Your task to perform on an android device: Open settings Image 0: 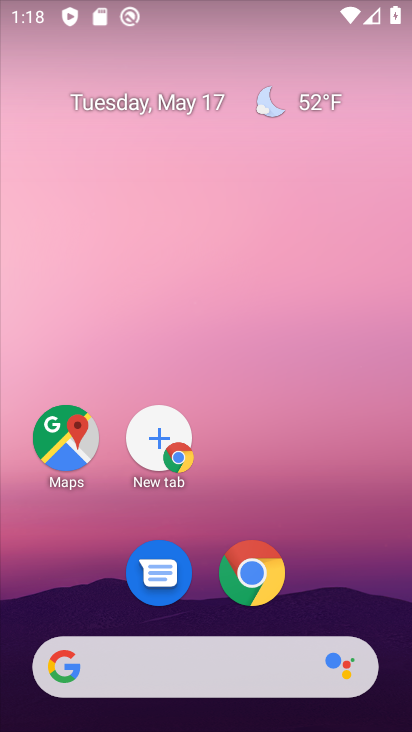
Step 0: drag from (326, 612) to (347, 181)
Your task to perform on an android device: Open settings Image 1: 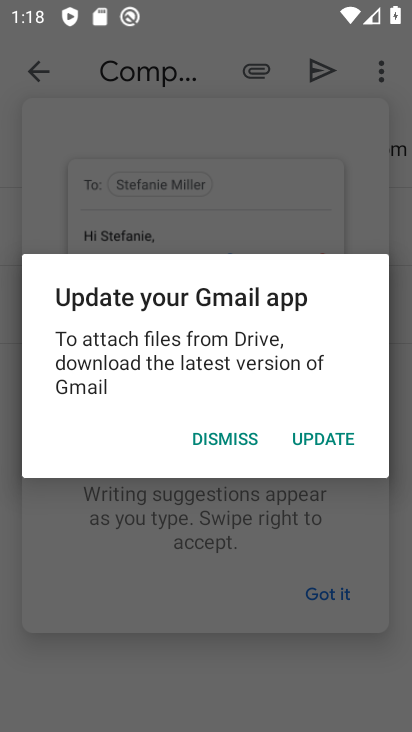
Step 1: press home button
Your task to perform on an android device: Open settings Image 2: 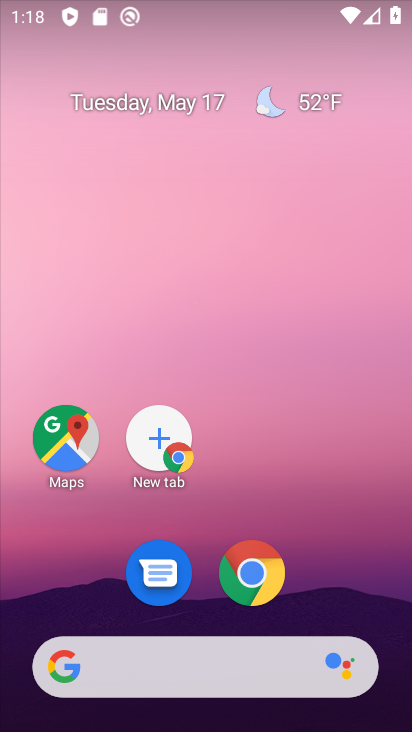
Step 2: drag from (301, 600) to (387, 134)
Your task to perform on an android device: Open settings Image 3: 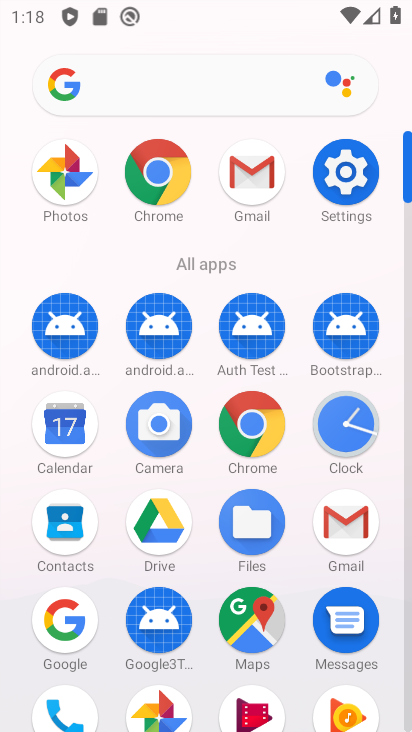
Step 3: click (339, 196)
Your task to perform on an android device: Open settings Image 4: 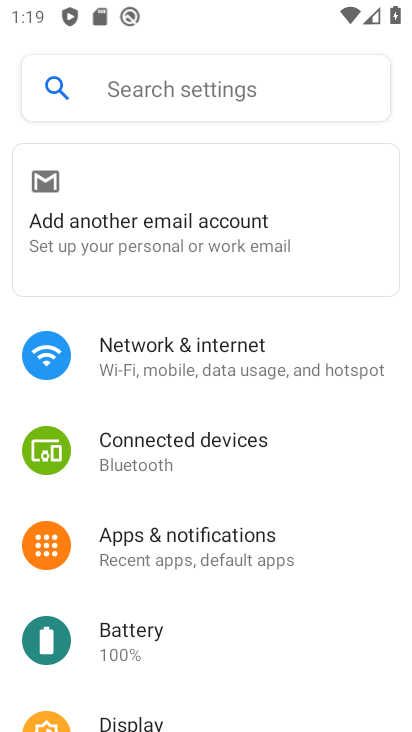
Step 4: task complete